Your task to perform on an android device: What's the news in Bolivia? Image 0: 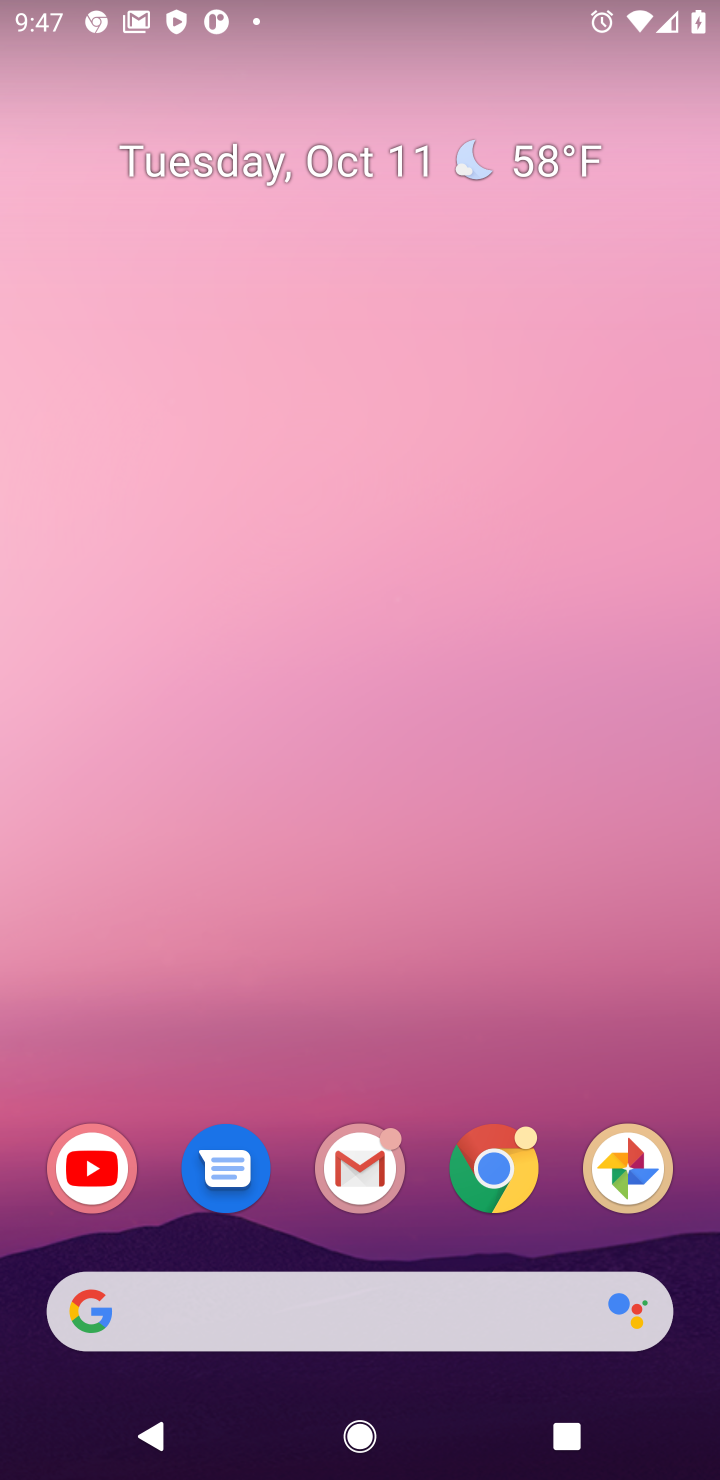
Step 0: press home button
Your task to perform on an android device: What's the news in Bolivia? Image 1: 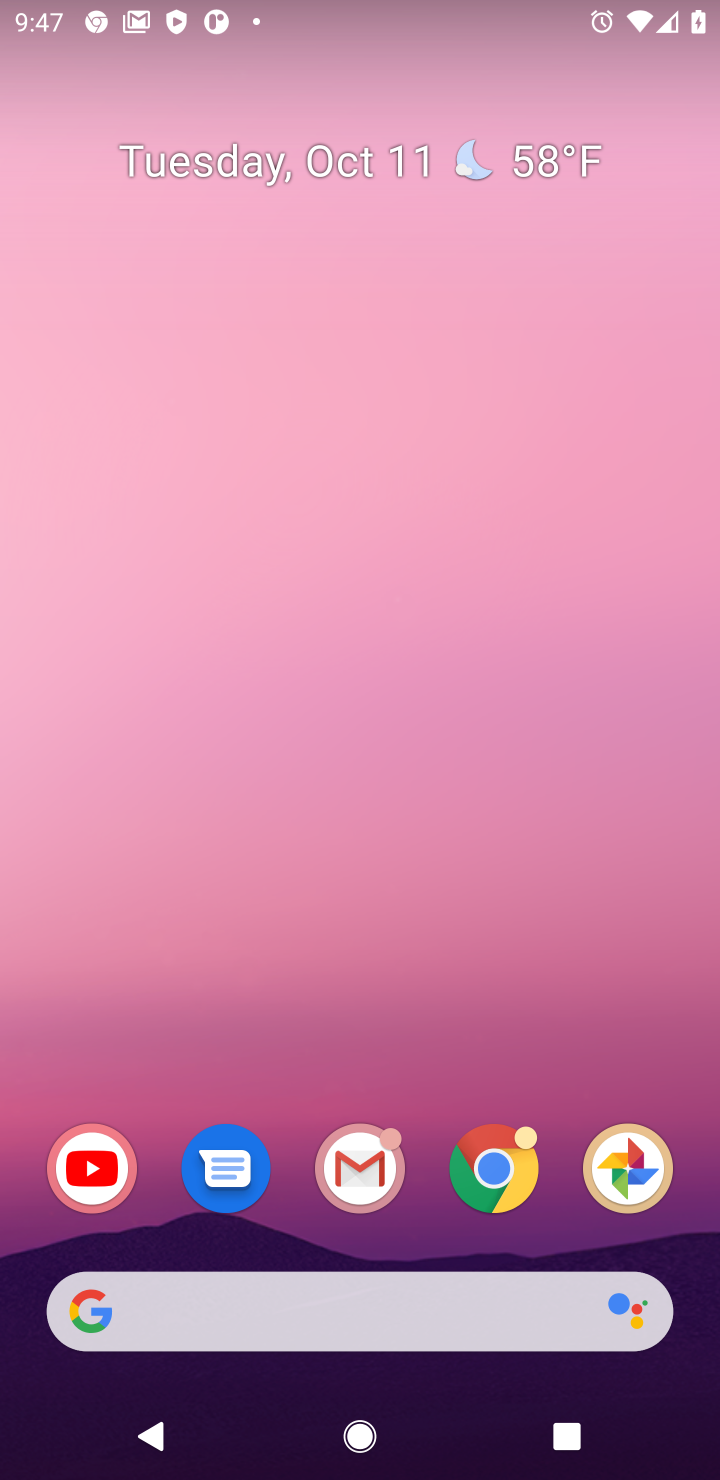
Step 1: click (491, 1184)
Your task to perform on an android device: What's the news in Bolivia? Image 2: 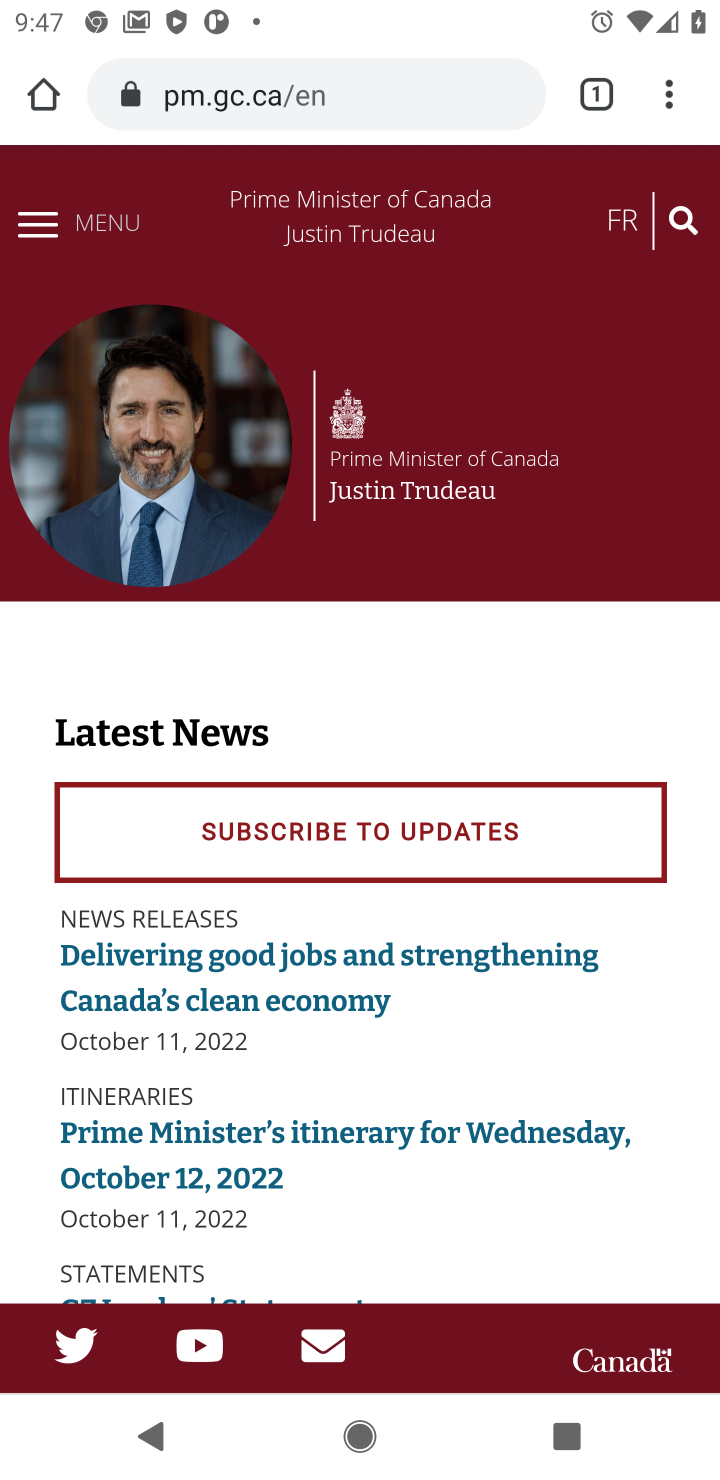
Step 2: click (305, 107)
Your task to perform on an android device: What's the news in Bolivia? Image 3: 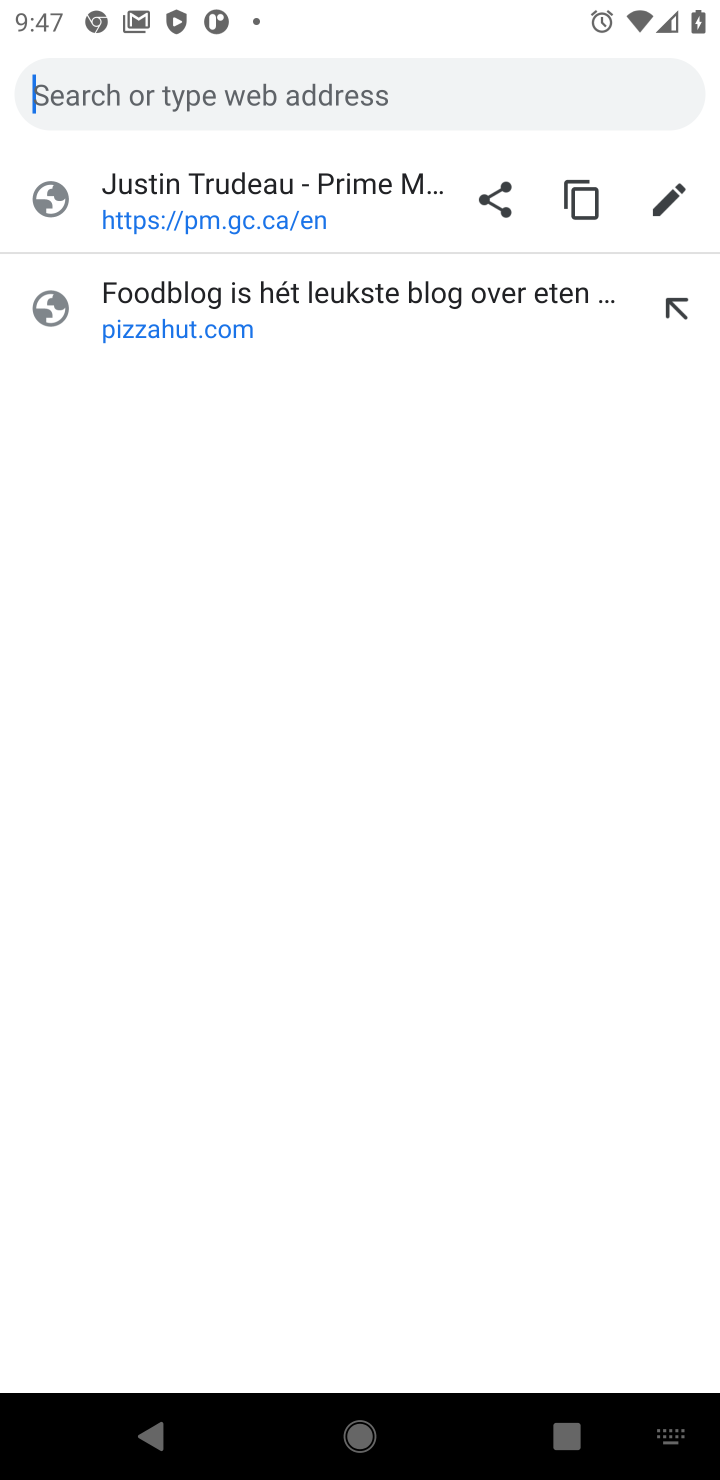
Step 3: type "whats the new in bolivia"
Your task to perform on an android device: What's the news in Bolivia? Image 4: 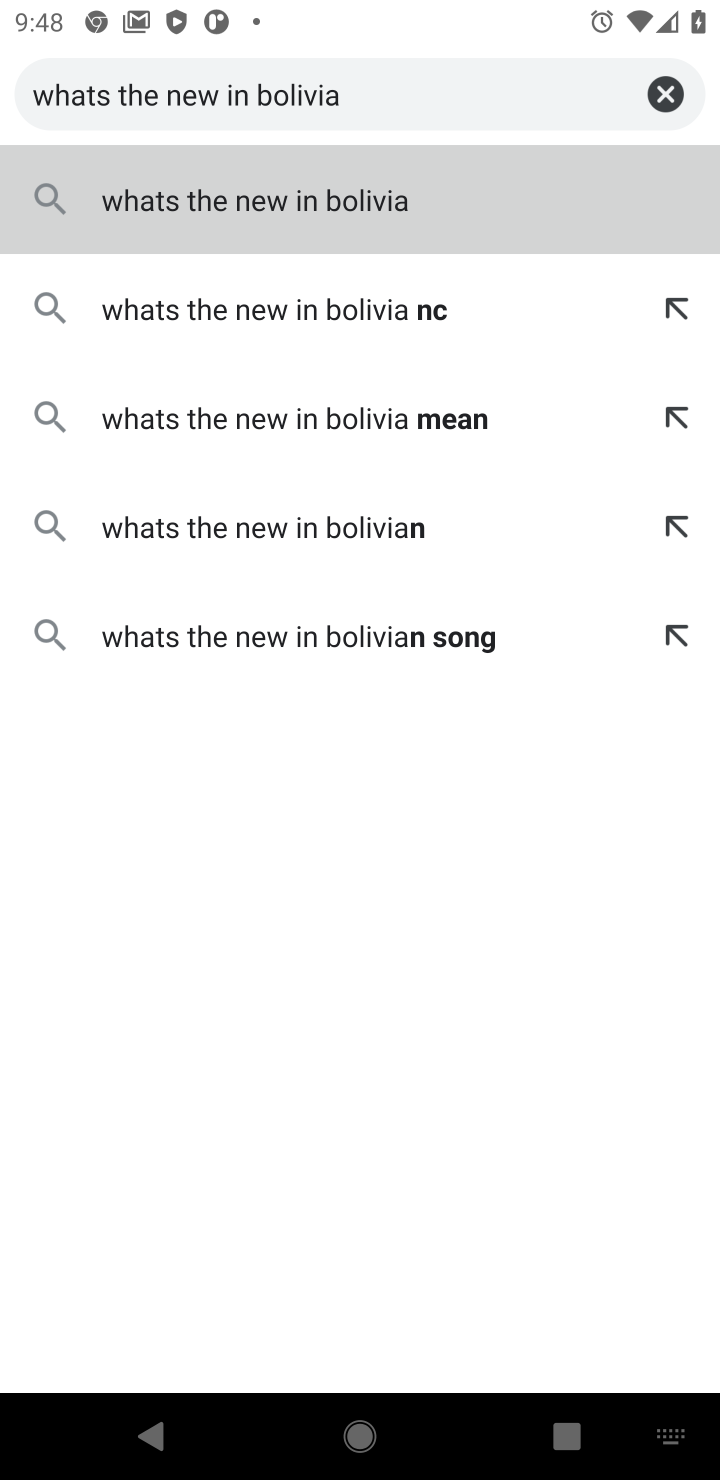
Step 4: click (349, 196)
Your task to perform on an android device: What's the news in Bolivia? Image 5: 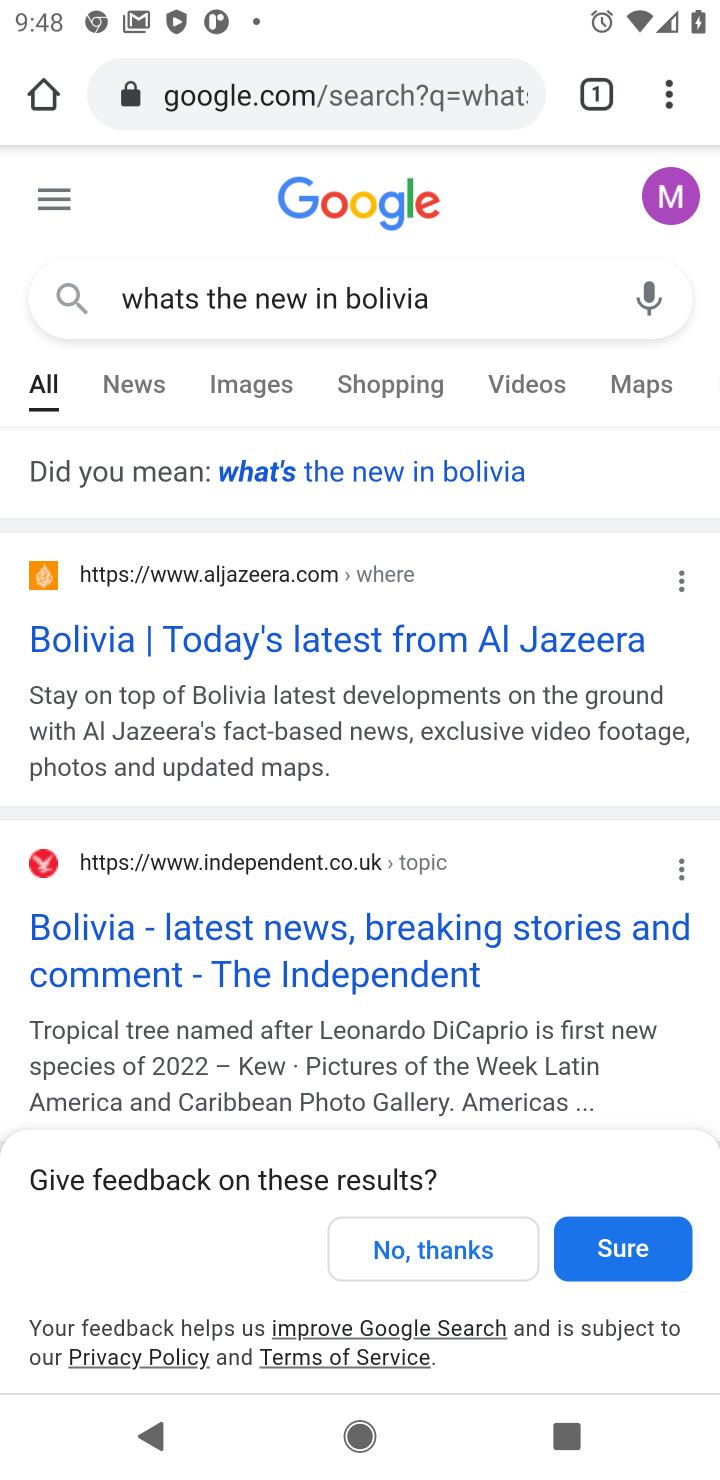
Step 5: click (433, 928)
Your task to perform on an android device: What's the news in Bolivia? Image 6: 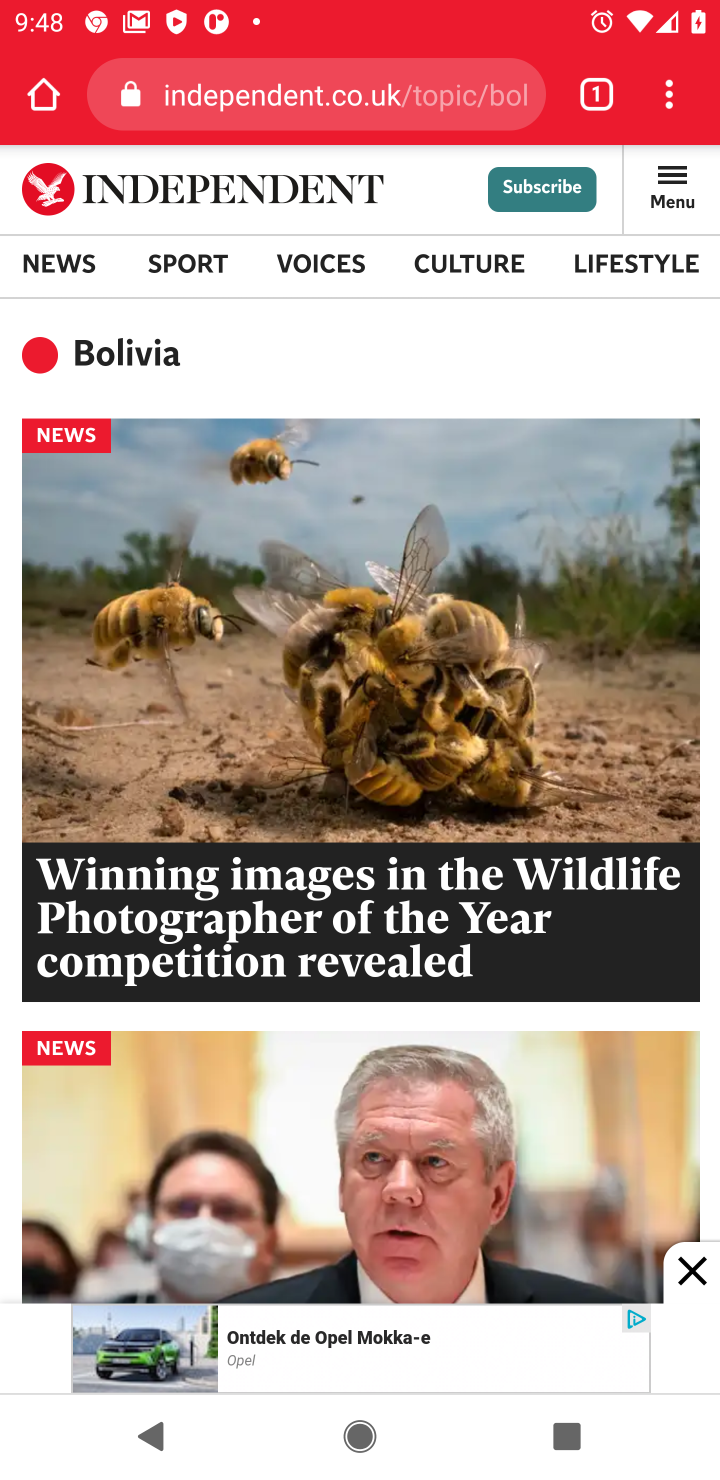
Step 6: click (698, 1262)
Your task to perform on an android device: What's the news in Bolivia? Image 7: 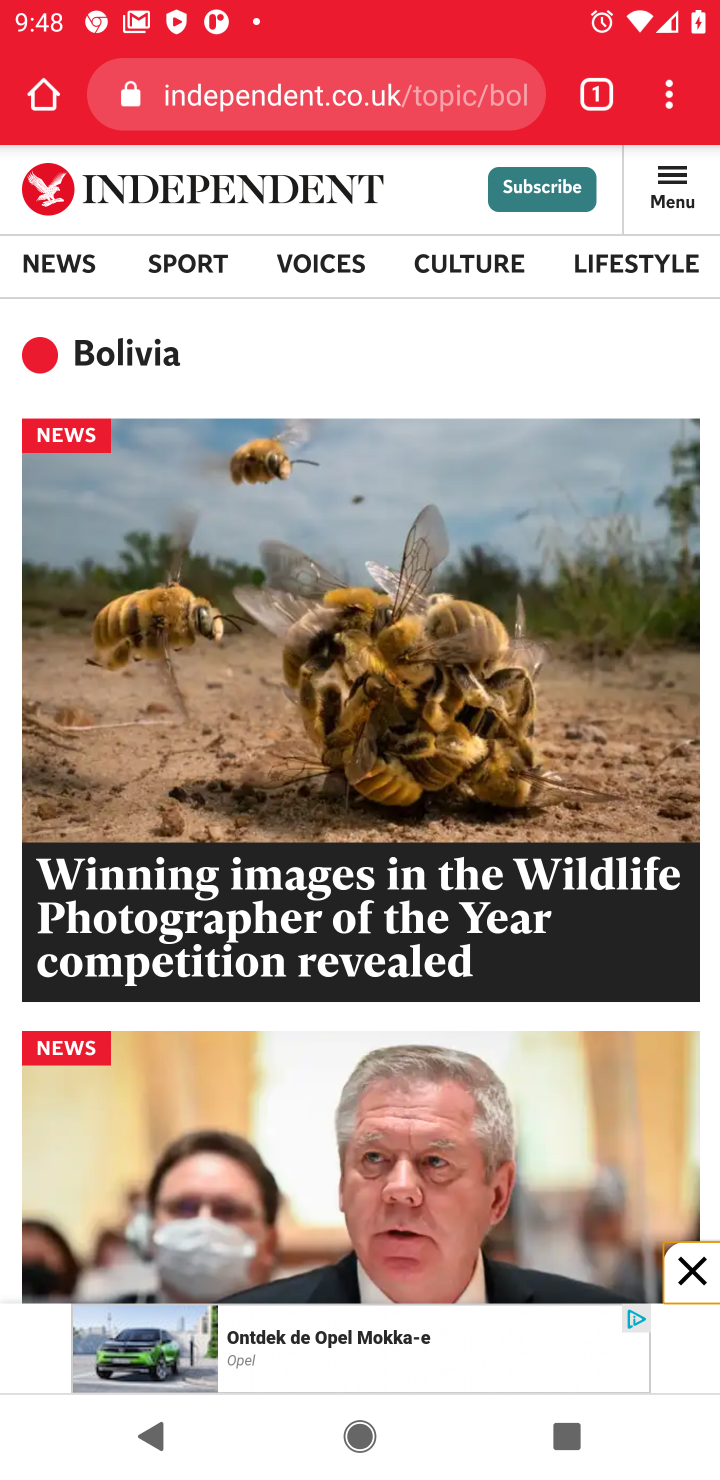
Step 7: click (699, 1264)
Your task to perform on an android device: What's the news in Bolivia? Image 8: 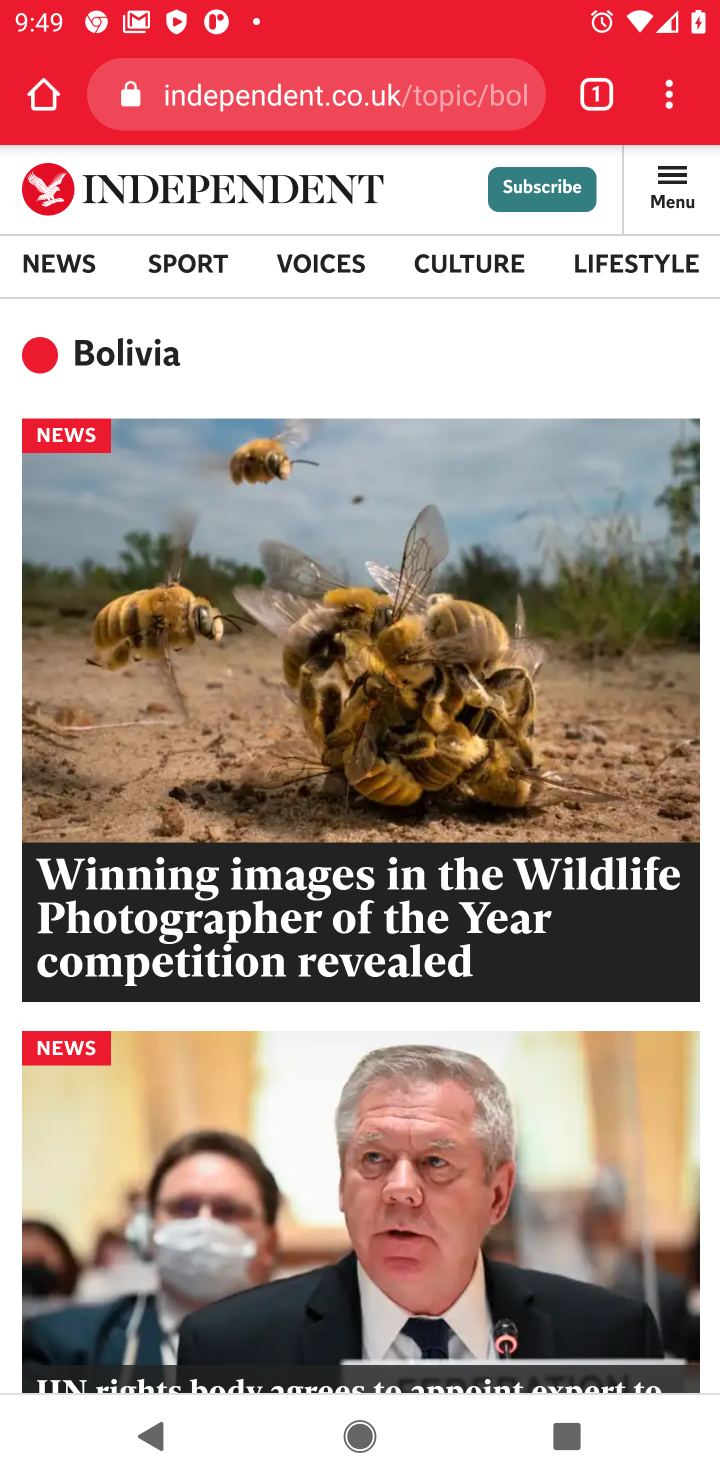
Step 8: drag from (522, 1134) to (449, 358)
Your task to perform on an android device: What's the news in Bolivia? Image 9: 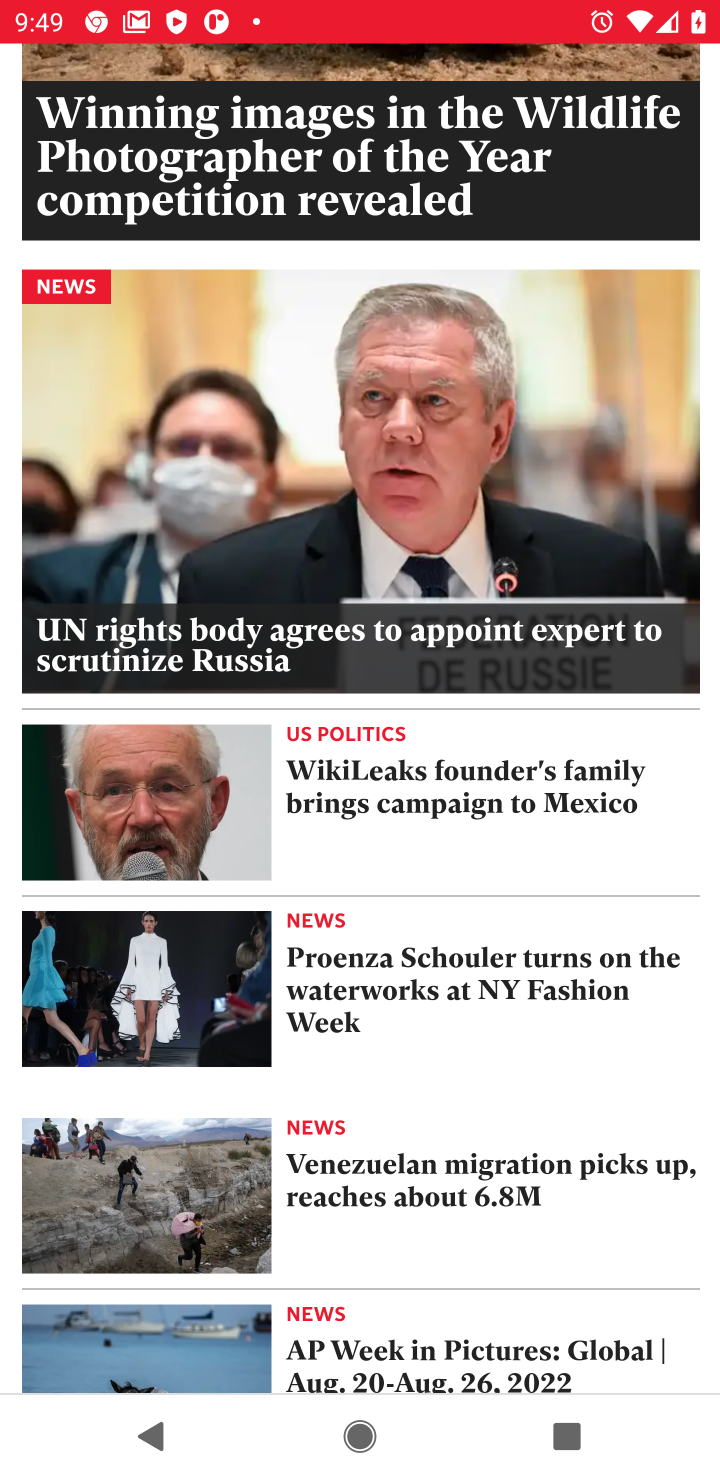
Step 9: drag from (205, 822) to (212, 411)
Your task to perform on an android device: What's the news in Bolivia? Image 10: 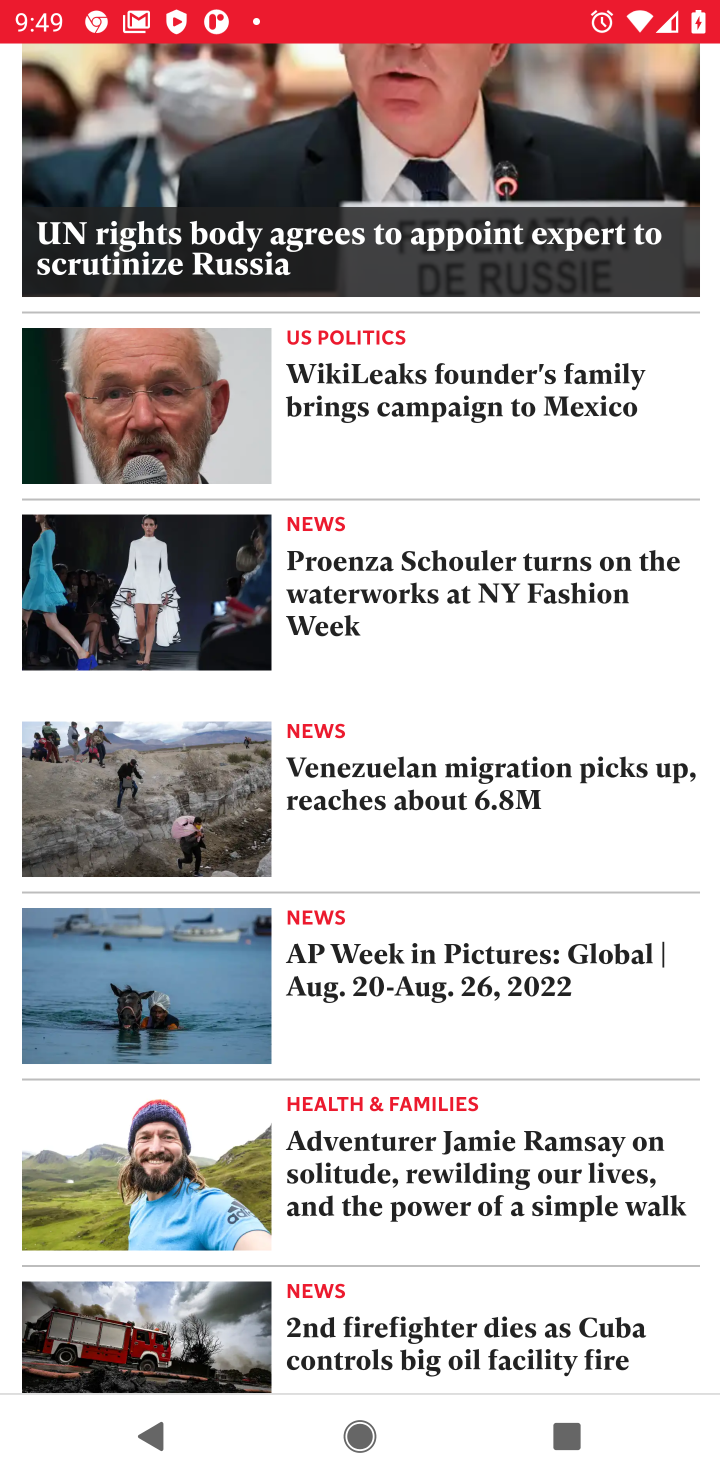
Step 10: drag from (190, 852) to (190, 499)
Your task to perform on an android device: What's the news in Bolivia? Image 11: 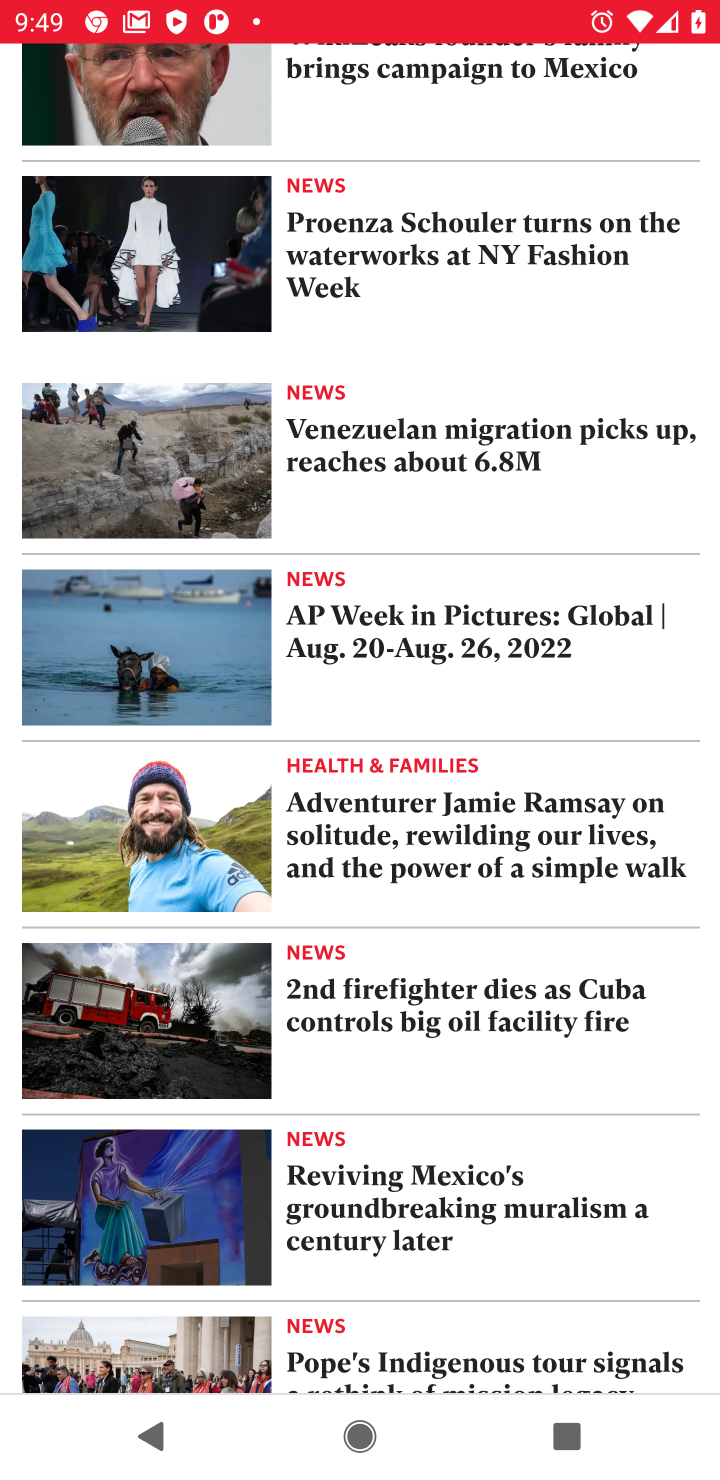
Step 11: click (141, 827)
Your task to perform on an android device: What's the news in Bolivia? Image 12: 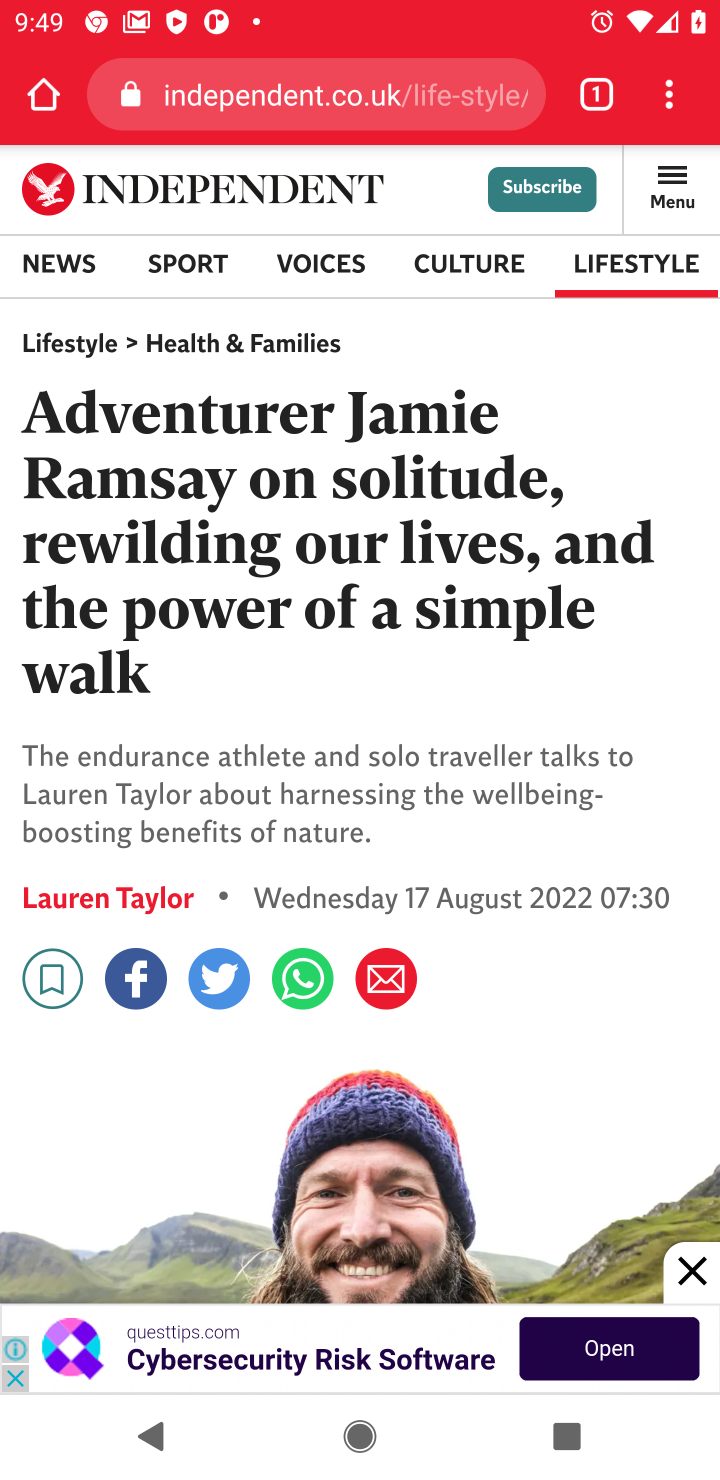
Step 12: click (687, 1268)
Your task to perform on an android device: What's the news in Bolivia? Image 13: 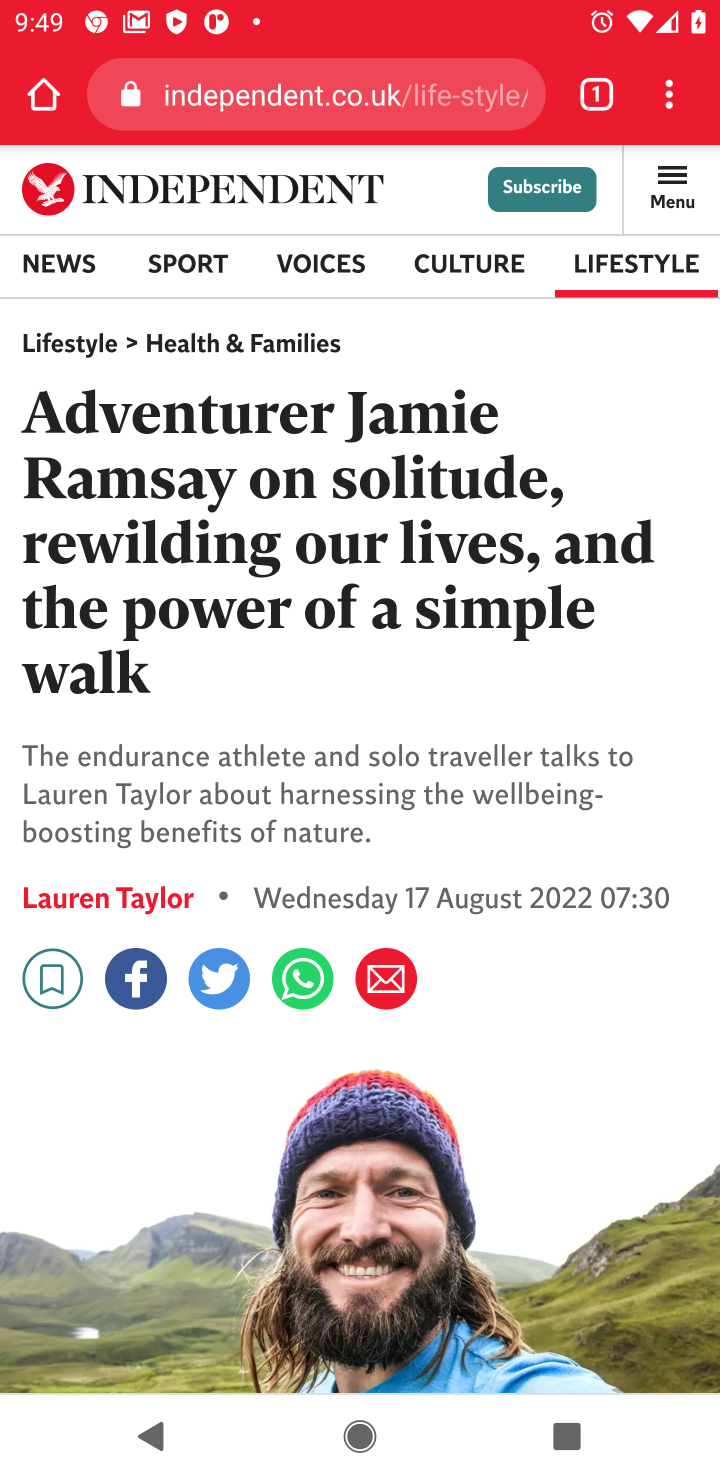
Step 13: drag from (468, 929) to (468, 489)
Your task to perform on an android device: What's the news in Bolivia? Image 14: 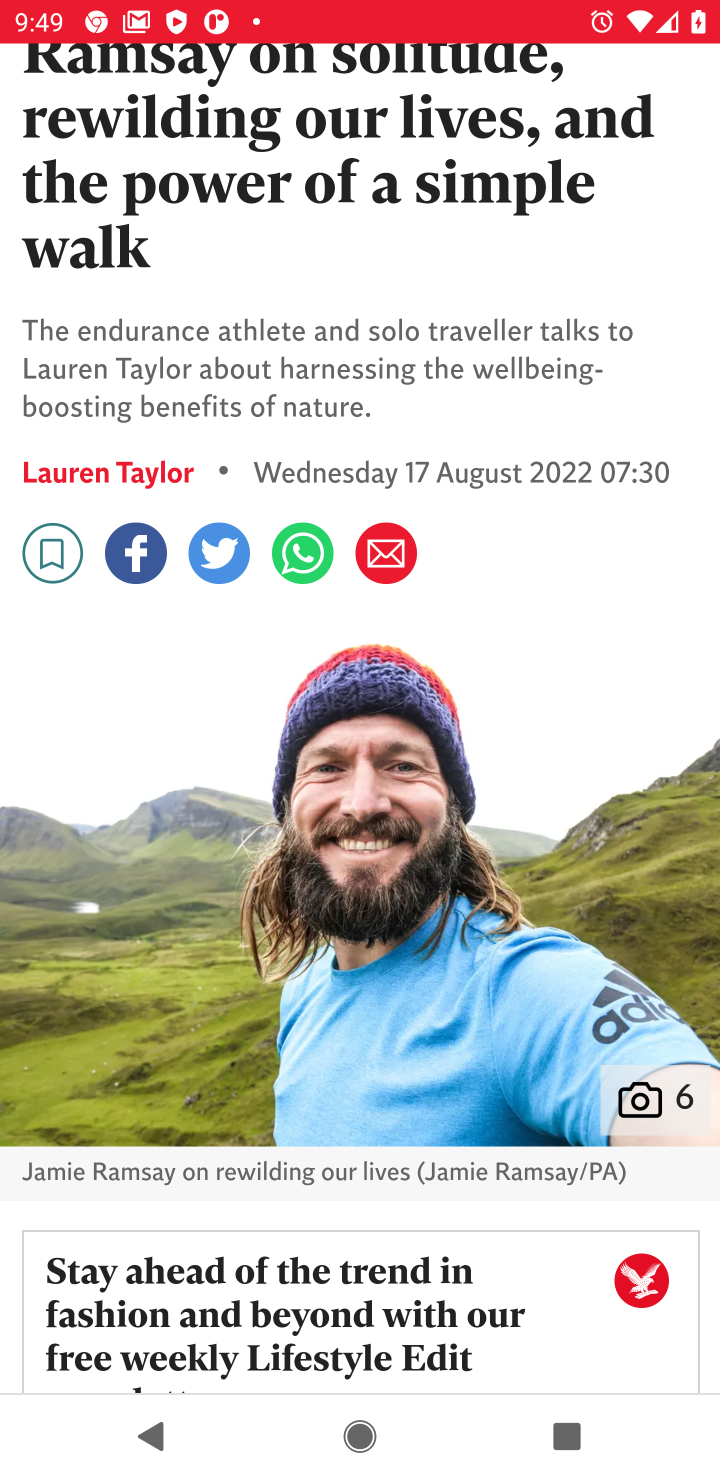
Step 14: drag from (499, 664) to (567, 258)
Your task to perform on an android device: What's the news in Bolivia? Image 15: 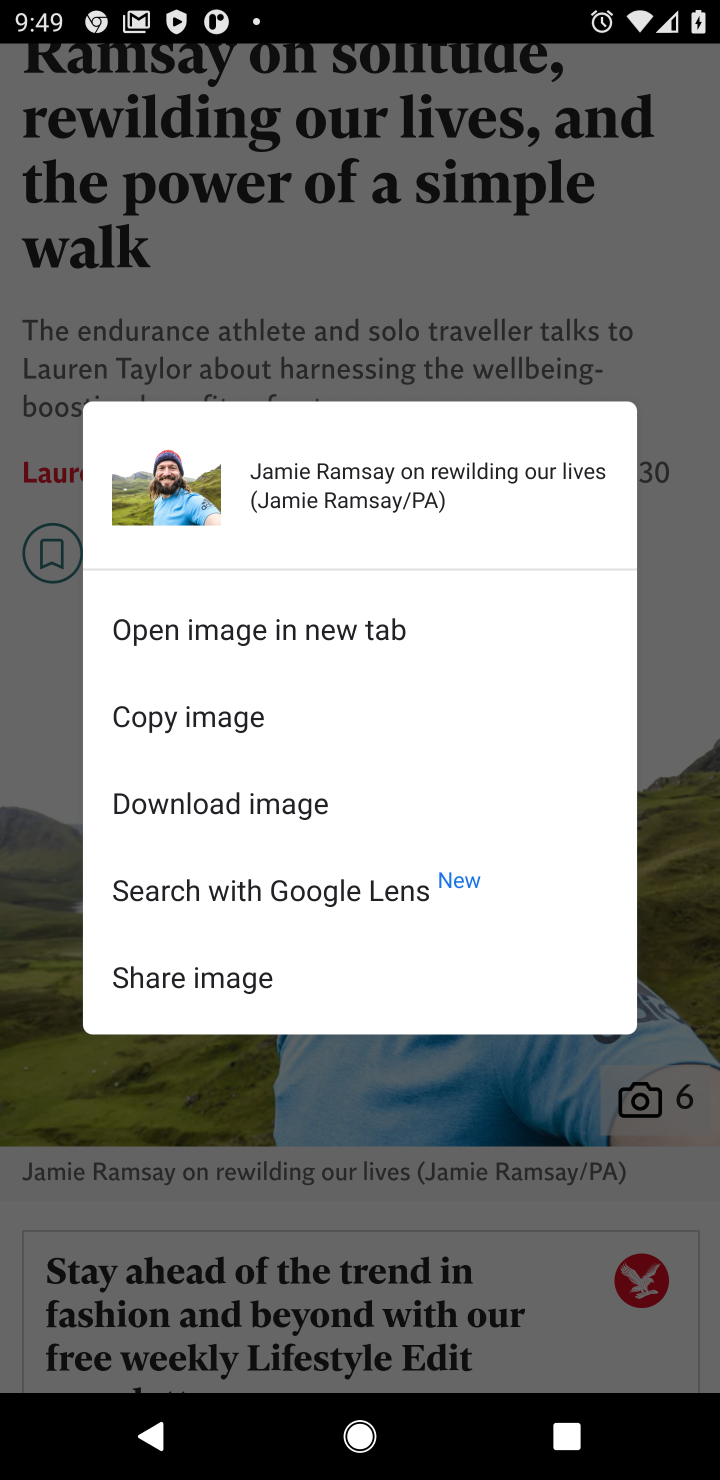
Step 15: drag from (330, 627) to (350, 489)
Your task to perform on an android device: What's the news in Bolivia? Image 16: 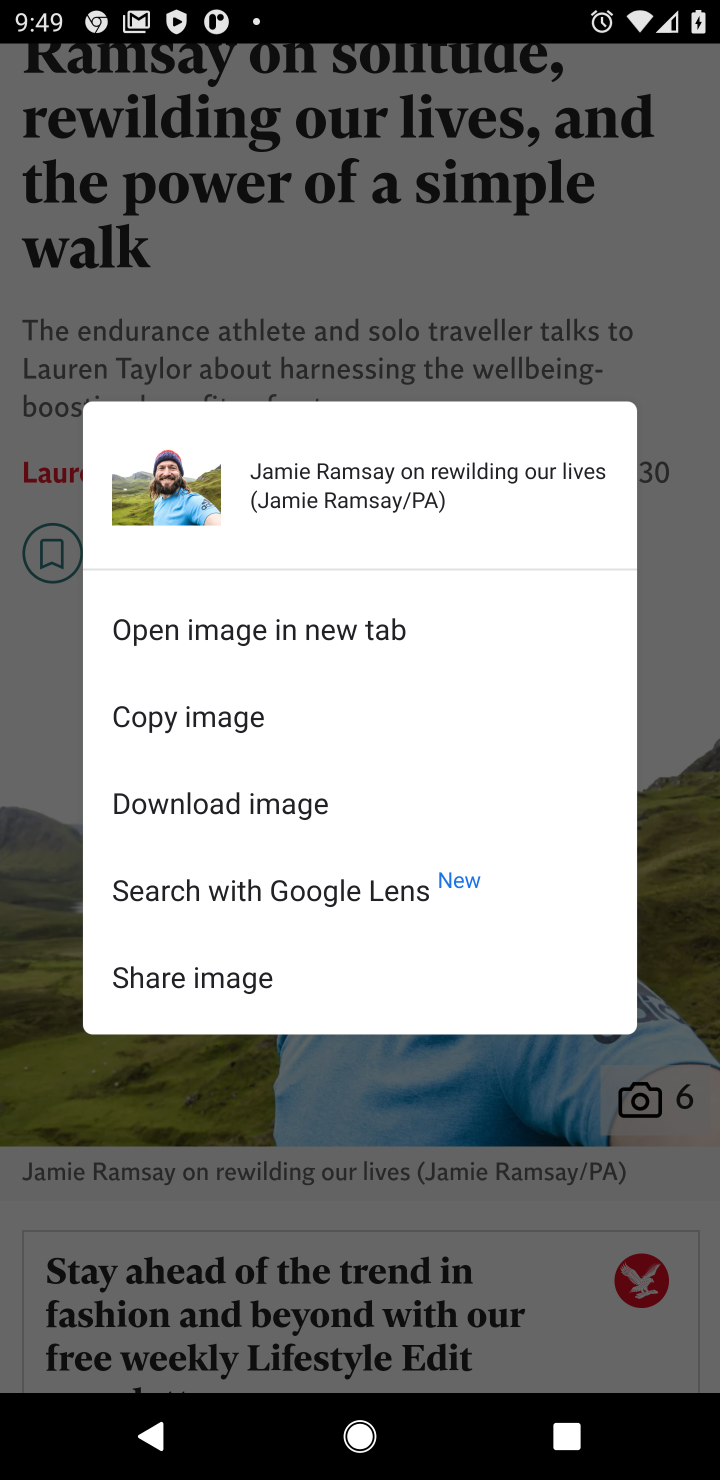
Step 16: click (666, 697)
Your task to perform on an android device: What's the news in Bolivia? Image 17: 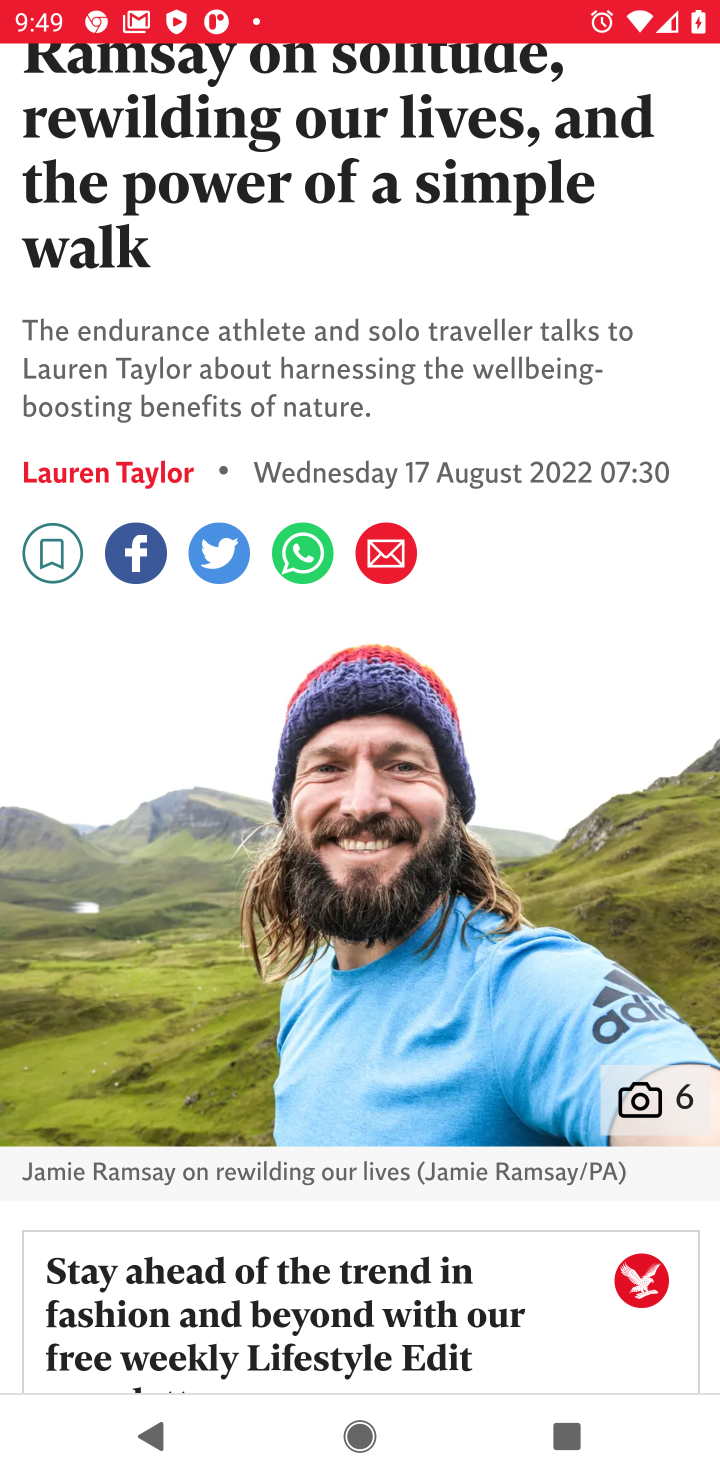
Step 17: task complete